Your task to perform on an android device: Clear the cart on walmart.com. Search for dell alienware on walmart.com, select the first entry, and add it to the cart. Image 0: 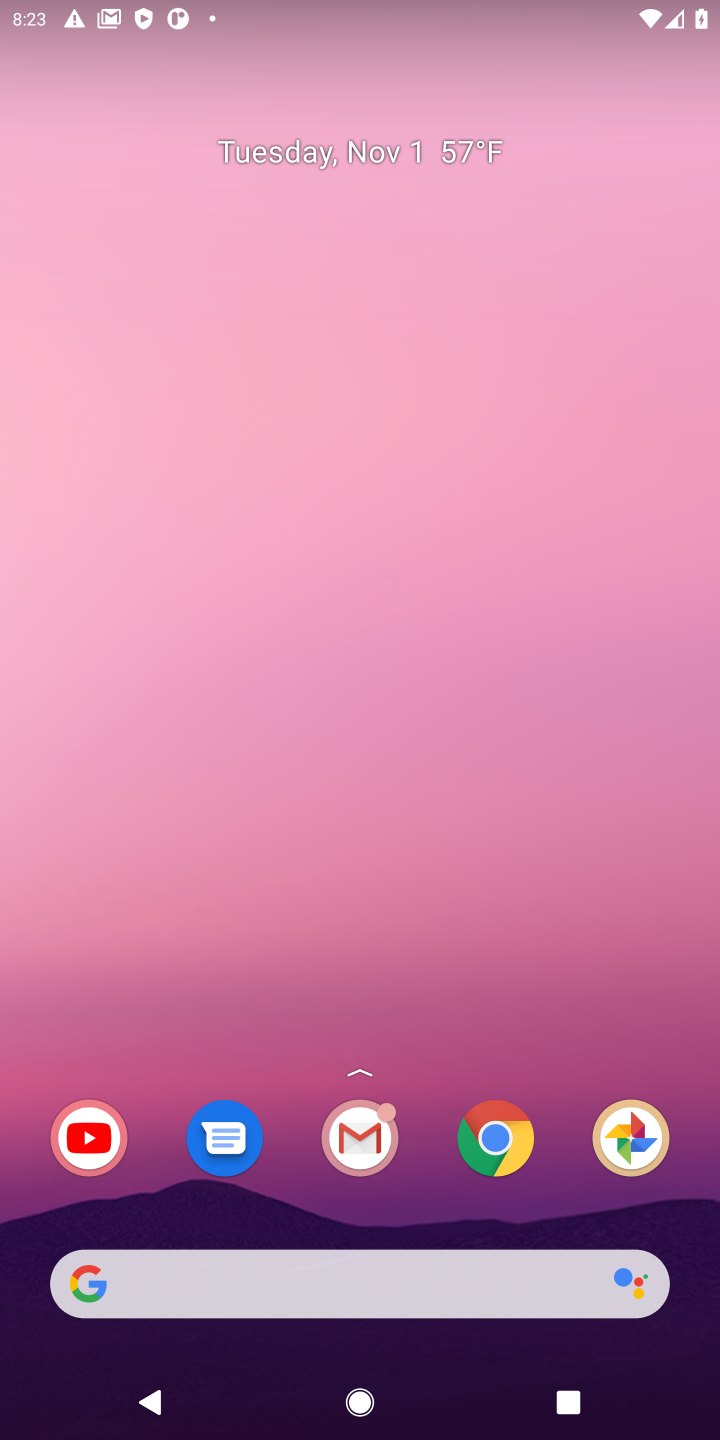
Step 0: click (495, 1143)
Your task to perform on an android device: Clear the cart on walmart.com. Search for dell alienware on walmart.com, select the first entry, and add it to the cart. Image 1: 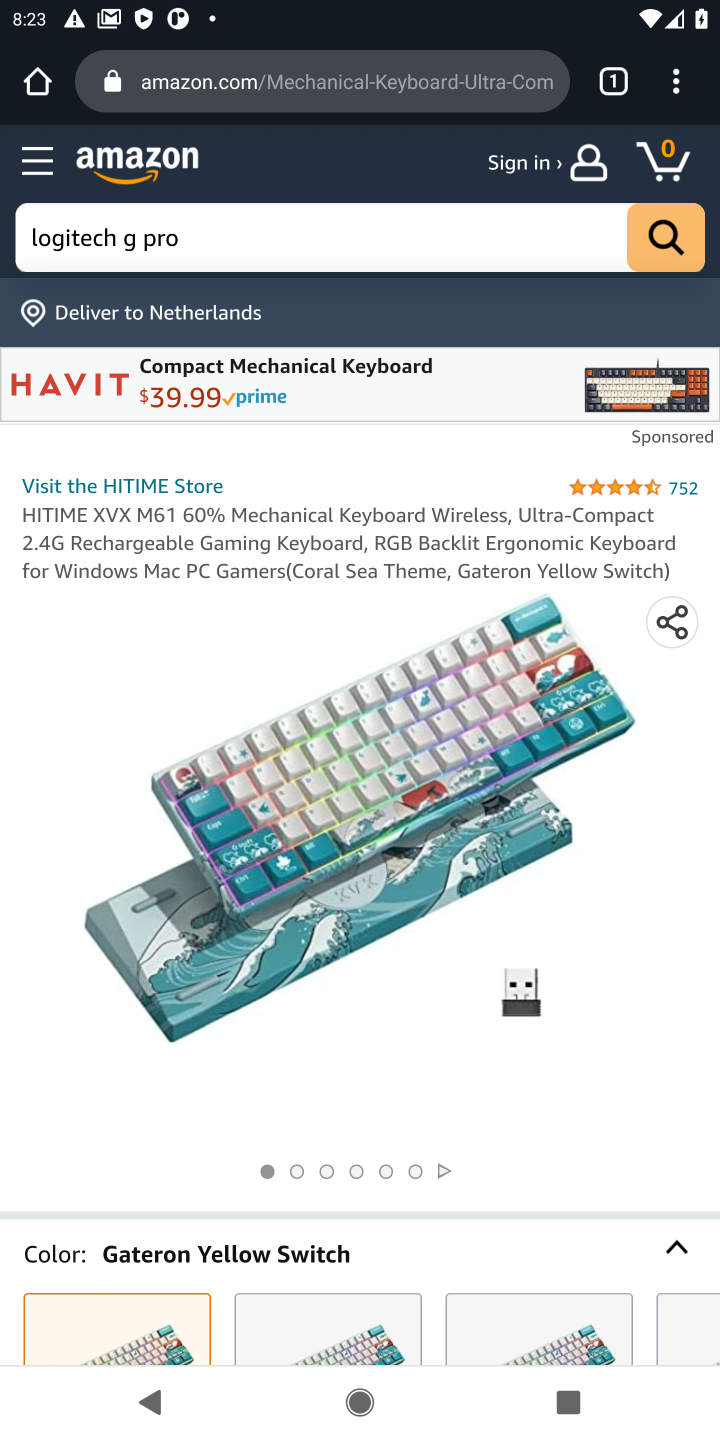
Step 1: click (306, 85)
Your task to perform on an android device: Clear the cart on walmart.com. Search for dell alienware on walmart.com, select the first entry, and add it to the cart. Image 2: 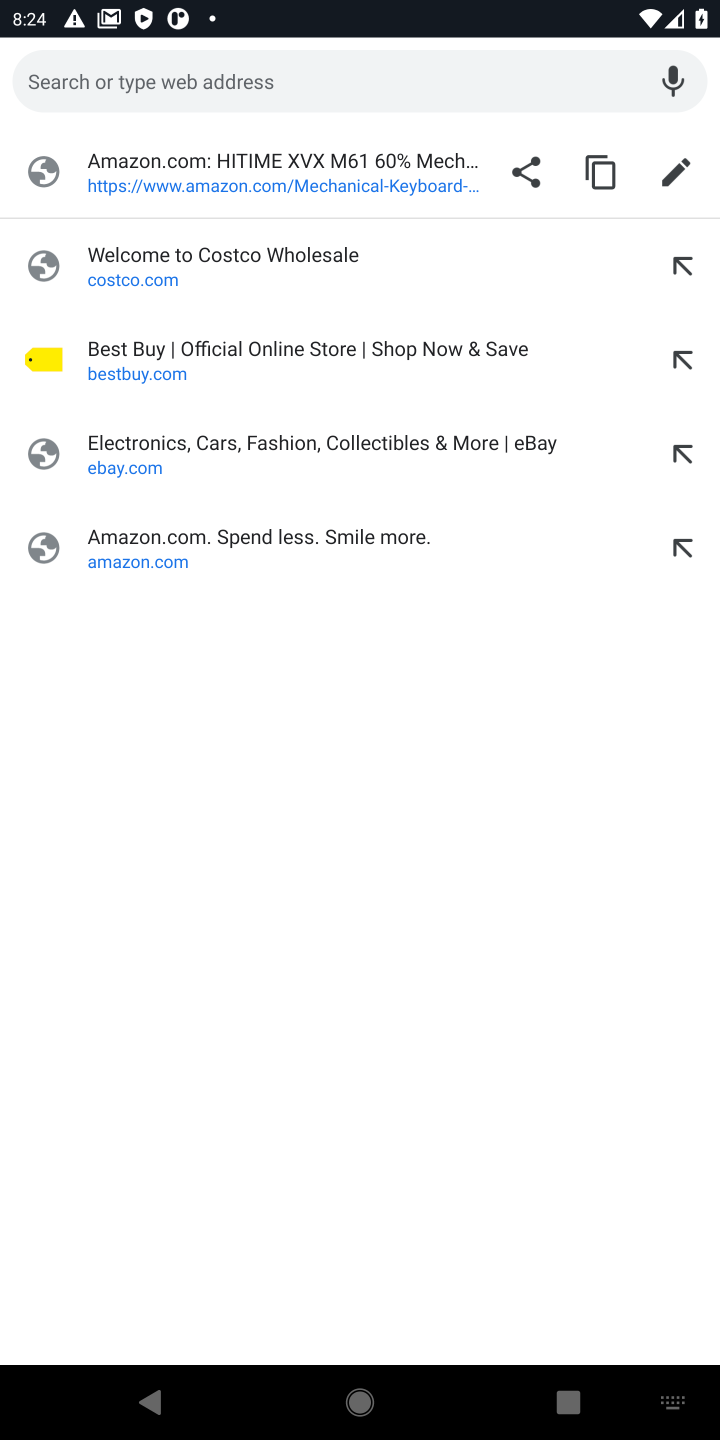
Step 2: click (306, 85)
Your task to perform on an android device: Clear the cart on walmart.com. Search for dell alienware on walmart.com, select the first entry, and add it to the cart. Image 3: 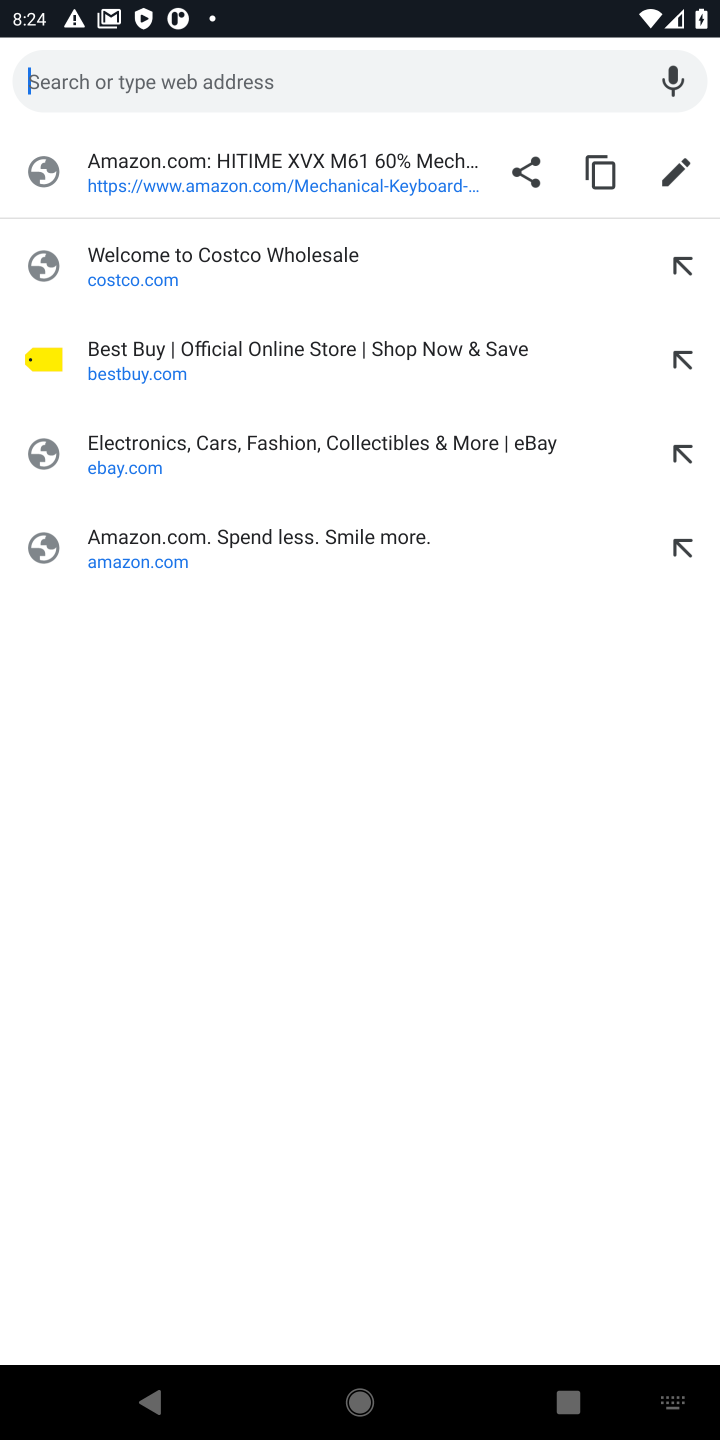
Step 3: type "walmart.com"
Your task to perform on an android device: Clear the cart on walmart.com. Search for dell alienware on walmart.com, select the first entry, and add it to the cart. Image 4: 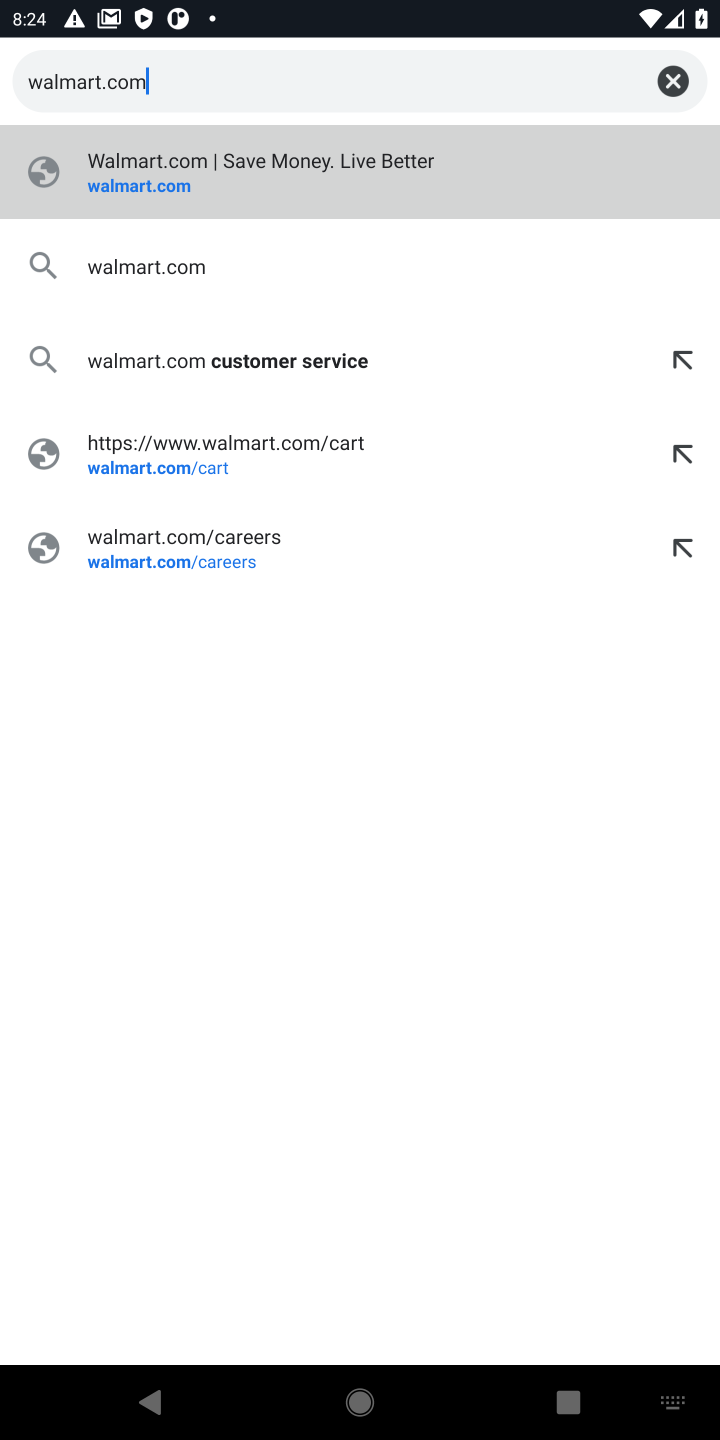
Step 4: click (138, 191)
Your task to perform on an android device: Clear the cart on walmart.com. Search for dell alienware on walmart.com, select the first entry, and add it to the cart. Image 5: 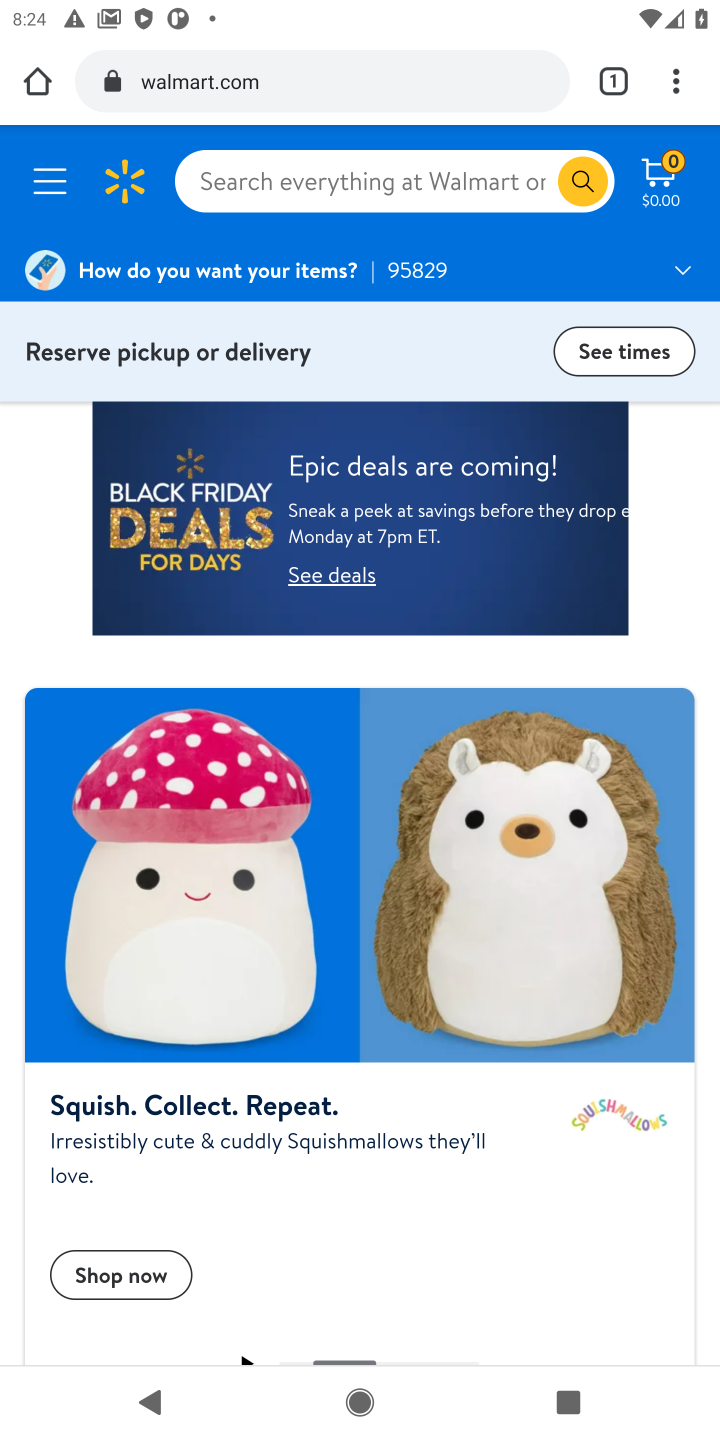
Step 5: click (659, 181)
Your task to perform on an android device: Clear the cart on walmart.com. Search for dell alienware on walmart.com, select the first entry, and add it to the cart. Image 6: 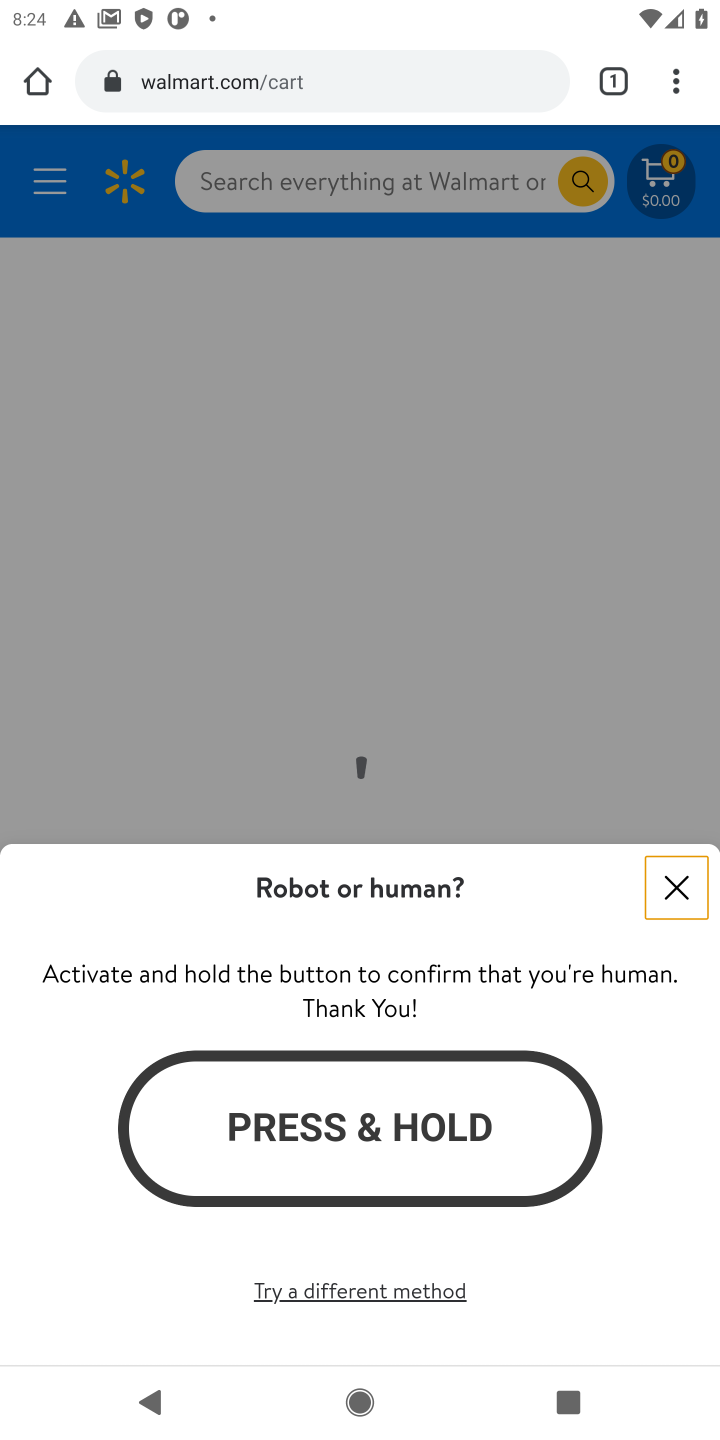
Step 6: click (246, 190)
Your task to perform on an android device: Clear the cart on walmart.com. Search for dell alienware on walmart.com, select the first entry, and add it to the cart. Image 7: 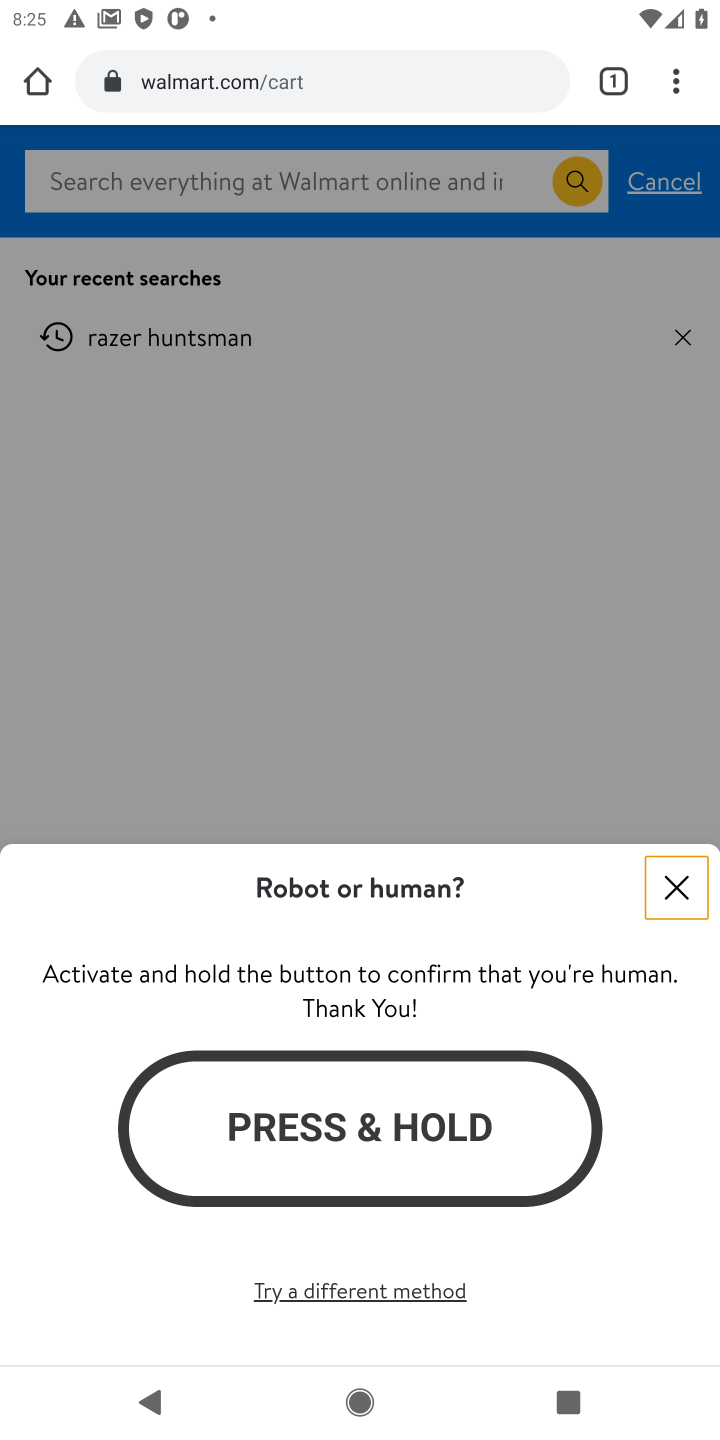
Step 7: click (139, 190)
Your task to perform on an android device: Clear the cart on walmart.com. Search for dell alienware on walmart.com, select the first entry, and add it to the cart. Image 8: 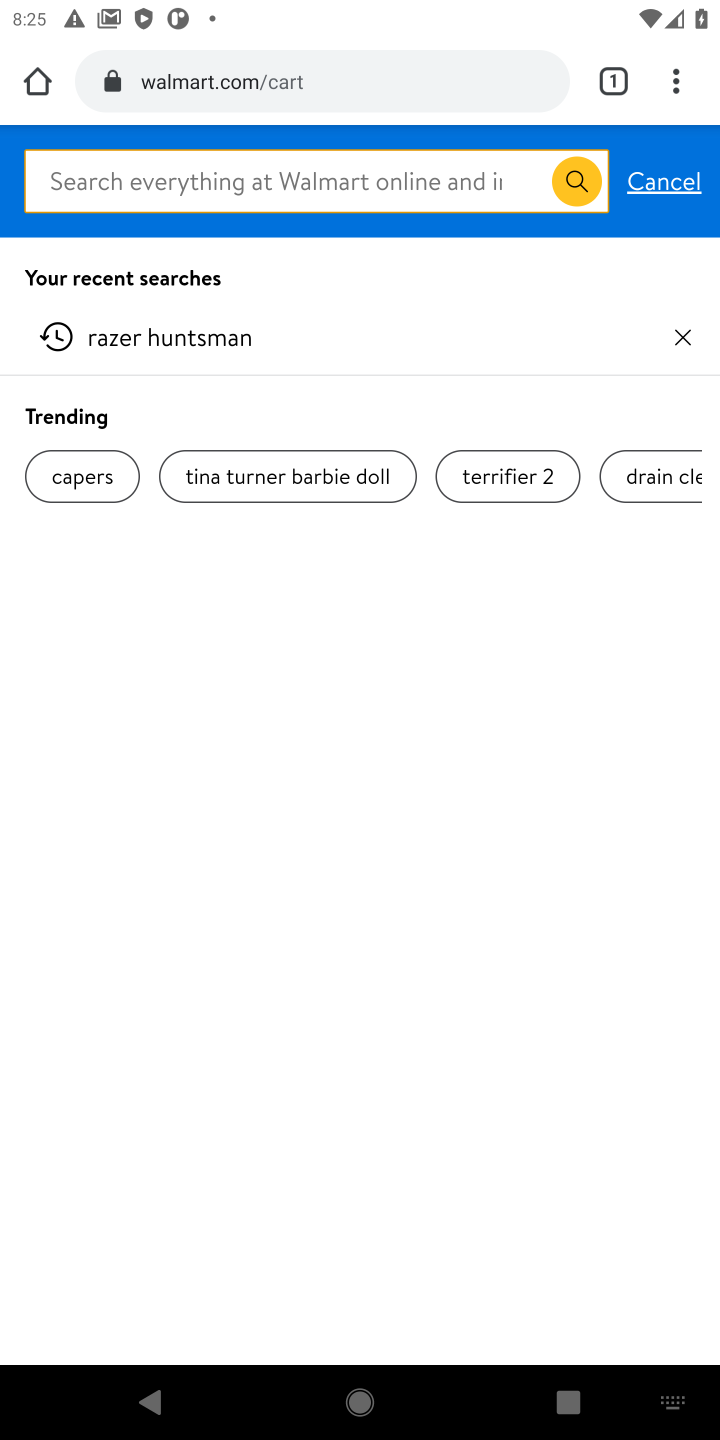
Step 8: type "dell alienware"
Your task to perform on an android device: Clear the cart on walmart.com. Search for dell alienware on walmart.com, select the first entry, and add it to the cart. Image 9: 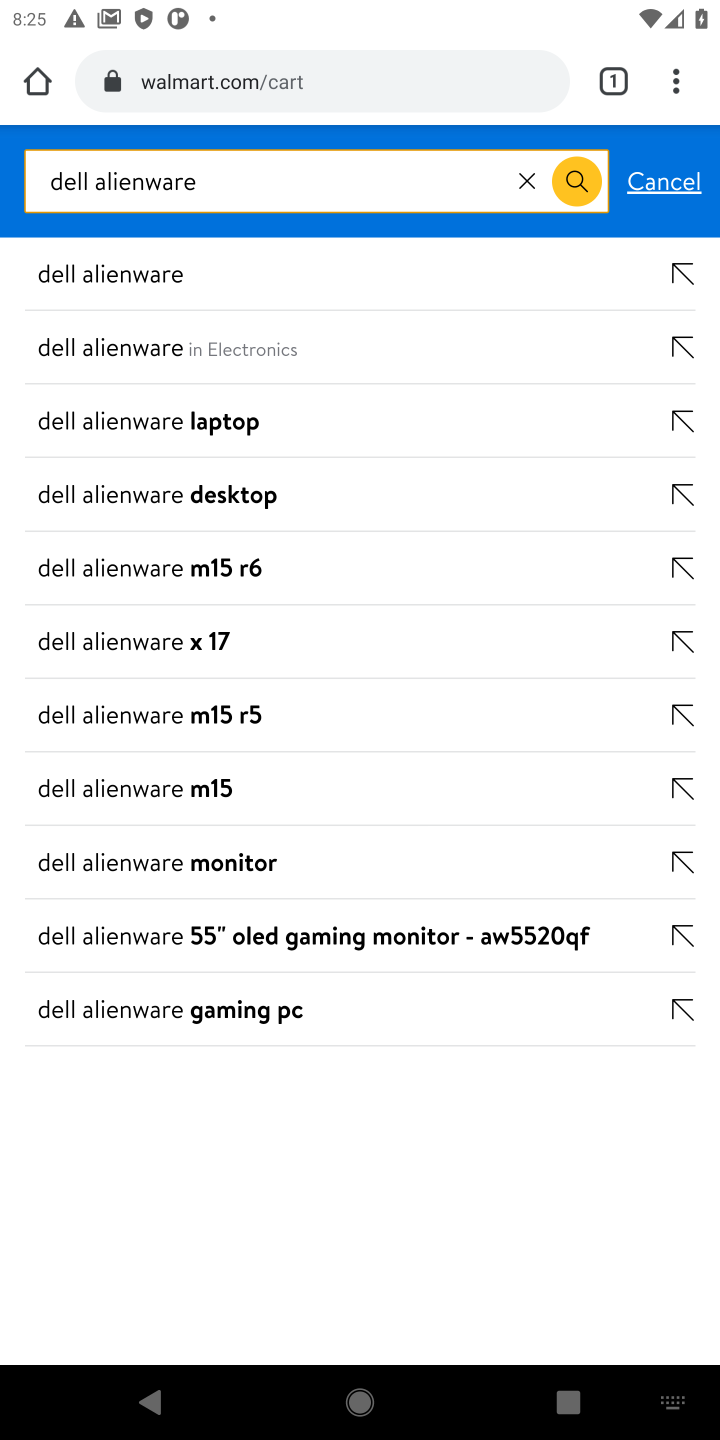
Step 9: click (157, 269)
Your task to perform on an android device: Clear the cart on walmart.com. Search for dell alienware on walmart.com, select the first entry, and add it to the cart. Image 10: 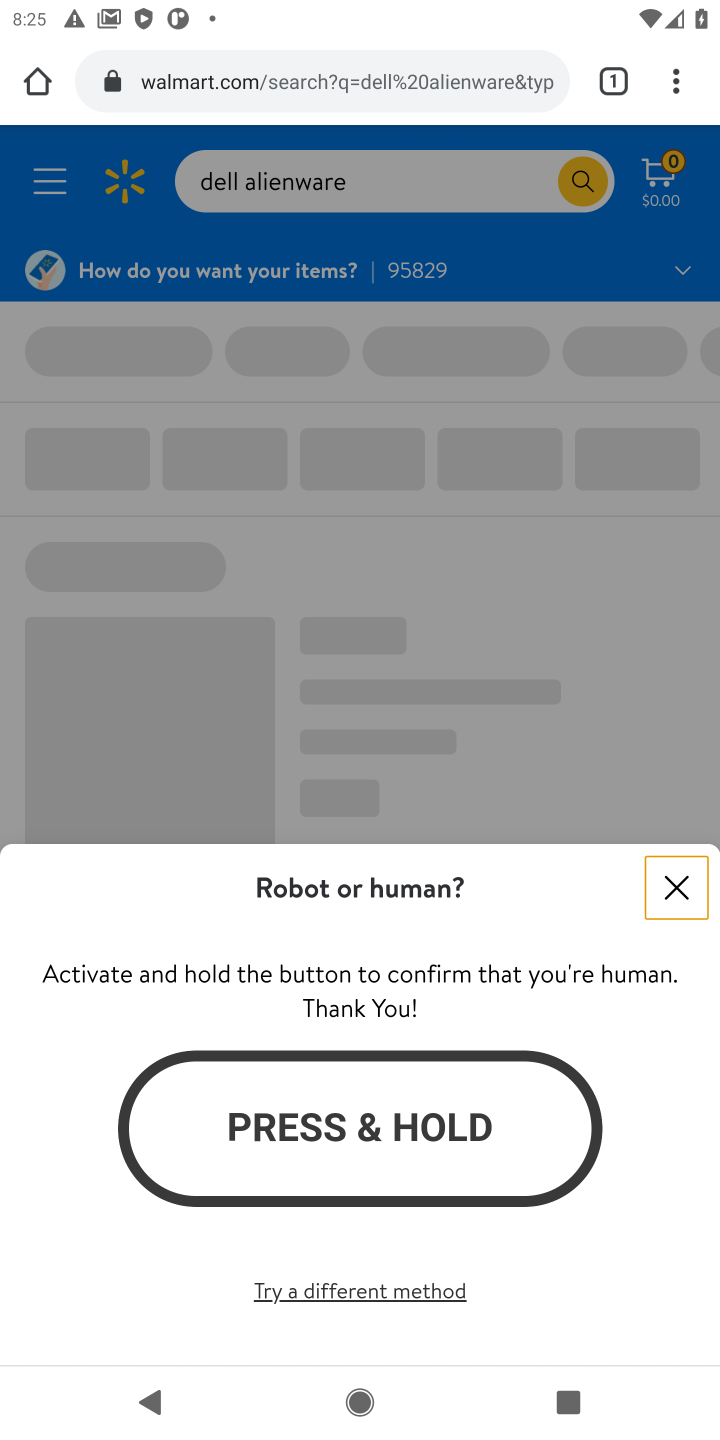
Step 10: click (677, 900)
Your task to perform on an android device: Clear the cart on walmart.com. Search for dell alienware on walmart.com, select the first entry, and add it to the cart. Image 11: 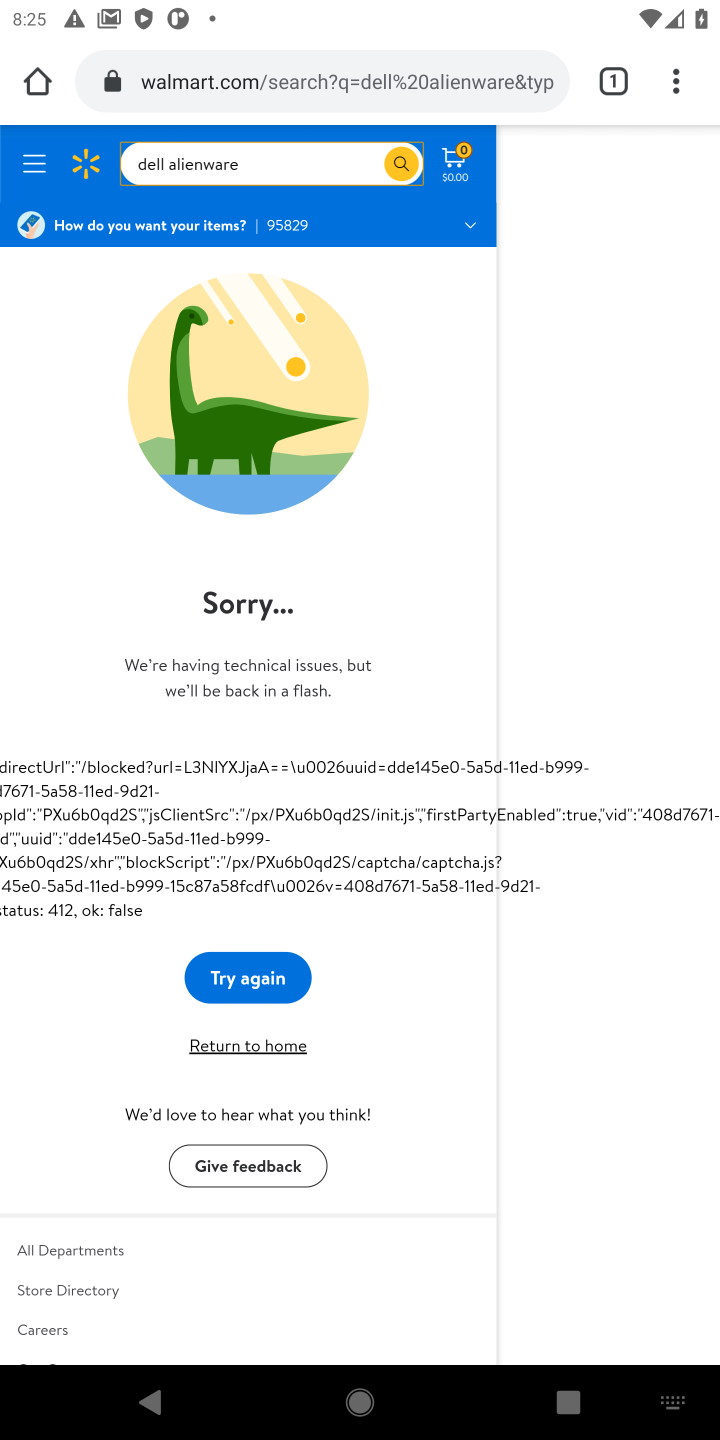
Step 11: task complete